Your task to perform on an android device: change text size in settings app Image 0: 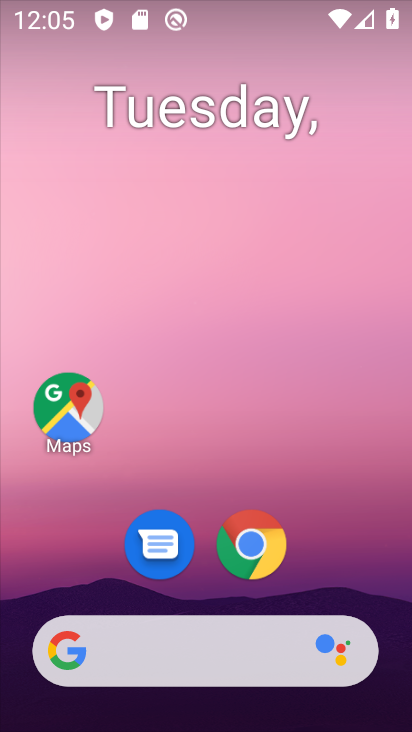
Step 0: task complete